Your task to perform on an android device: What's the weather going to be this weekend? Image 0: 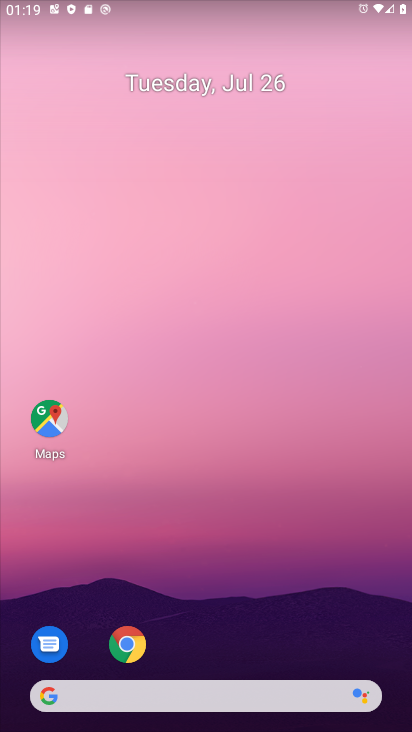
Step 0: click (131, 647)
Your task to perform on an android device: What's the weather going to be this weekend? Image 1: 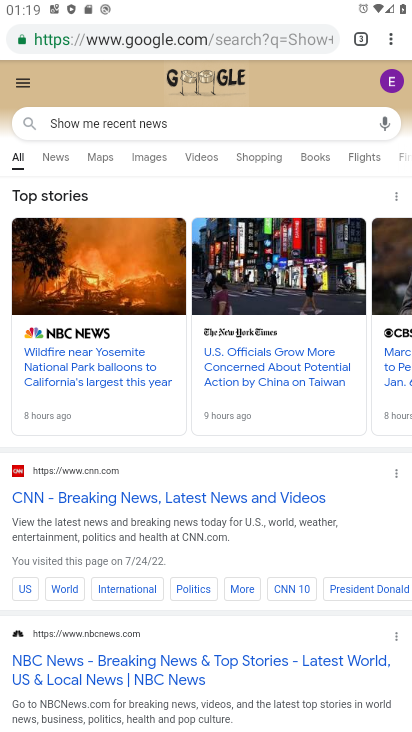
Step 1: click (392, 36)
Your task to perform on an android device: What's the weather going to be this weekend? Image 2: 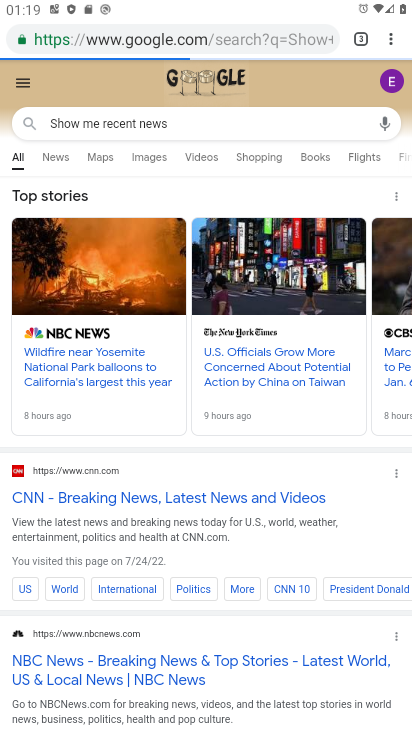
Step 2: click (399, 45)
Your task to perform on an android device: What's the weather going to be this weekend? Image 3: 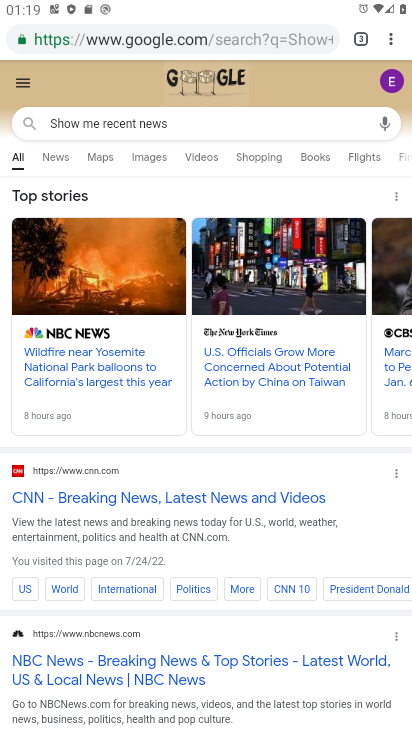
Step 3: click (399, 38)
Your task to perform on an android device: What's the weather going to be this weekend? Image 4: 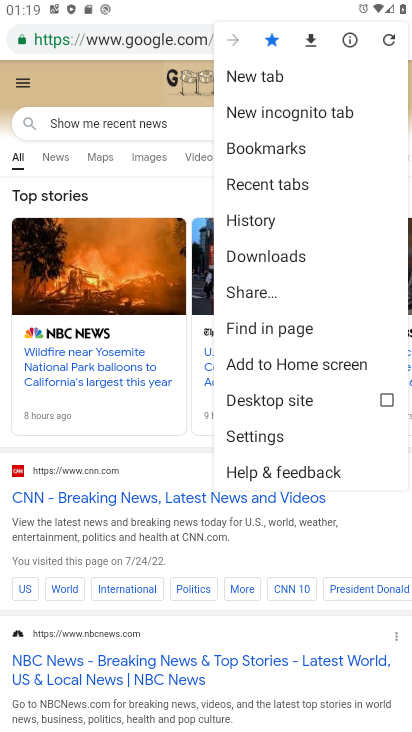
Step 4: click (294, 60)
Your task to perform on an android device: What's the weather going to be this weekend? Image 5: 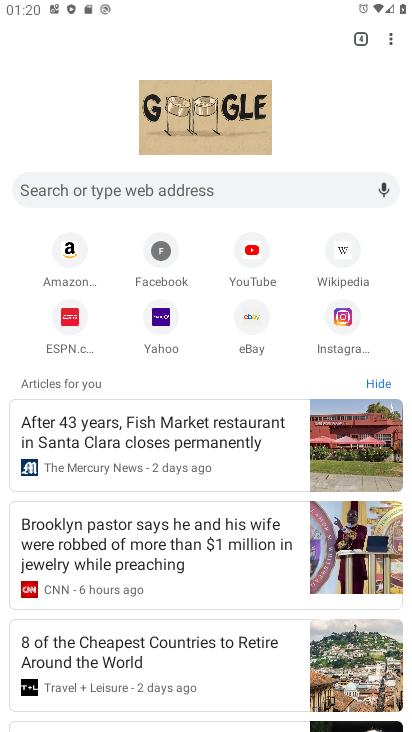
Step 5: click (161, 193)
Your task to perform on an android device: What's the weather going to be this weekend? Image 6: 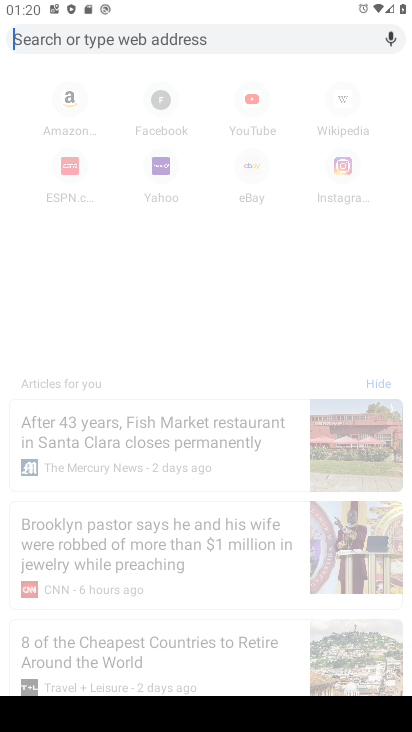
Step 6: type "What's the weather going to be this weekend?"
Your task to perform on an android device: What's the weather going to be this weekend? Image 7: 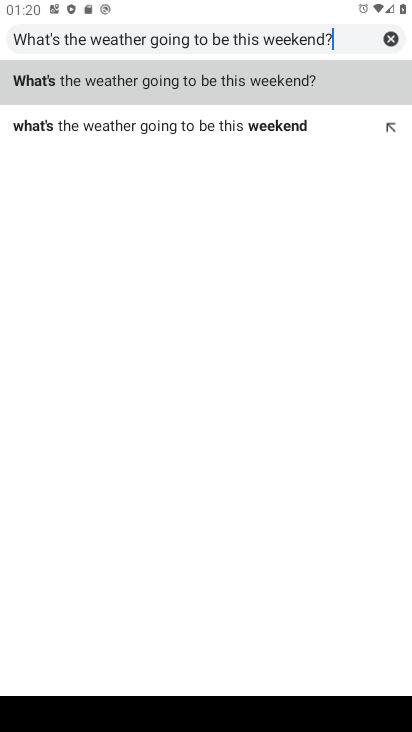
Step 7: click (91, 72)
Your task to perform on an android device: What's the weather going to be this weekend? Image 8: 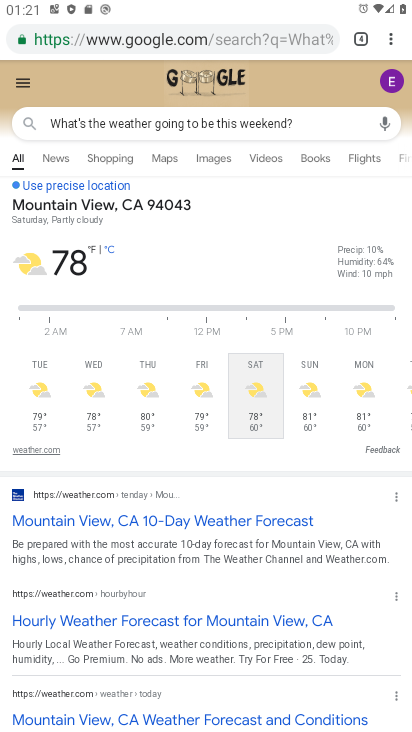
Step 8: task complete